Your task to perform on an android device: Look up the top rated headphones on Amazon. Image 0: 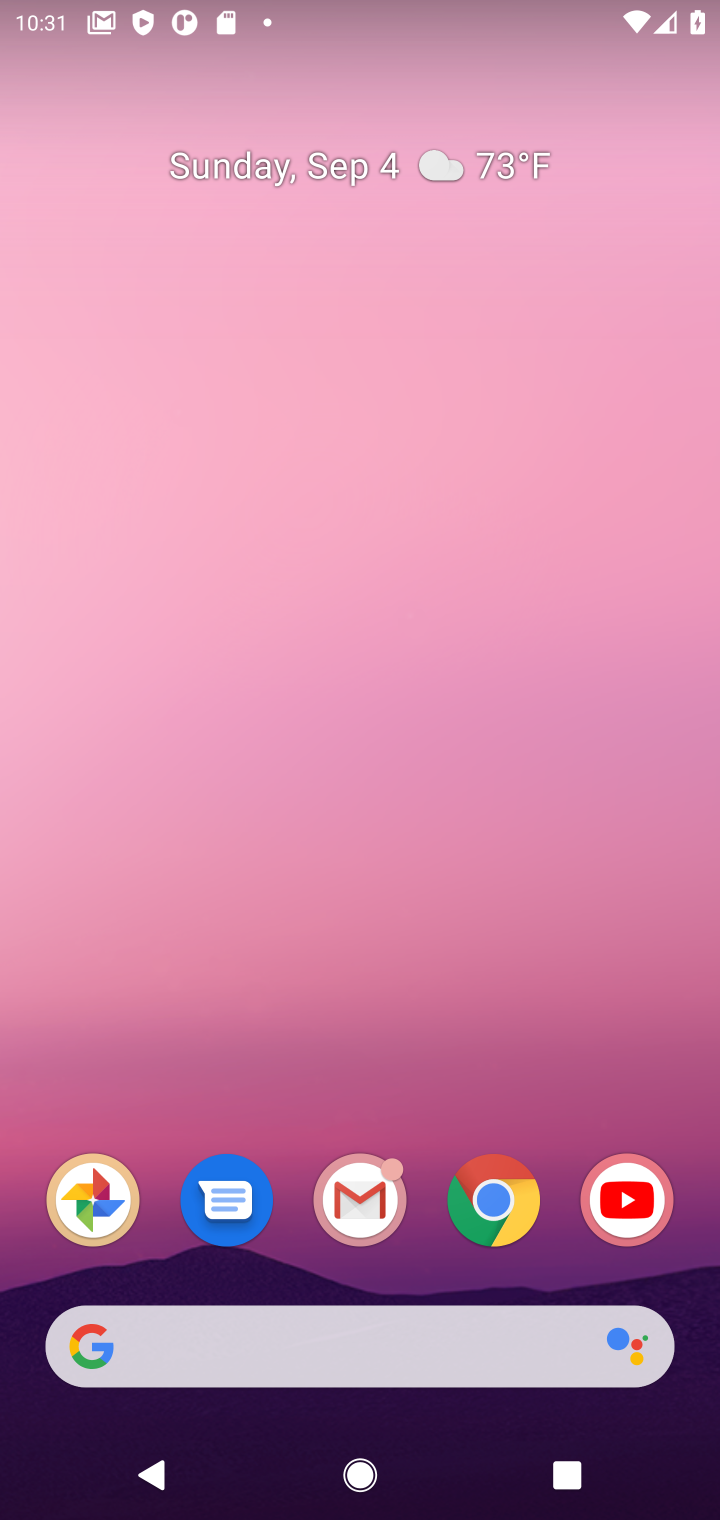
Step 0: click (623, 257)
Your task to perform on an android device: Look up the top rated headphones on Amazon. Image 1: 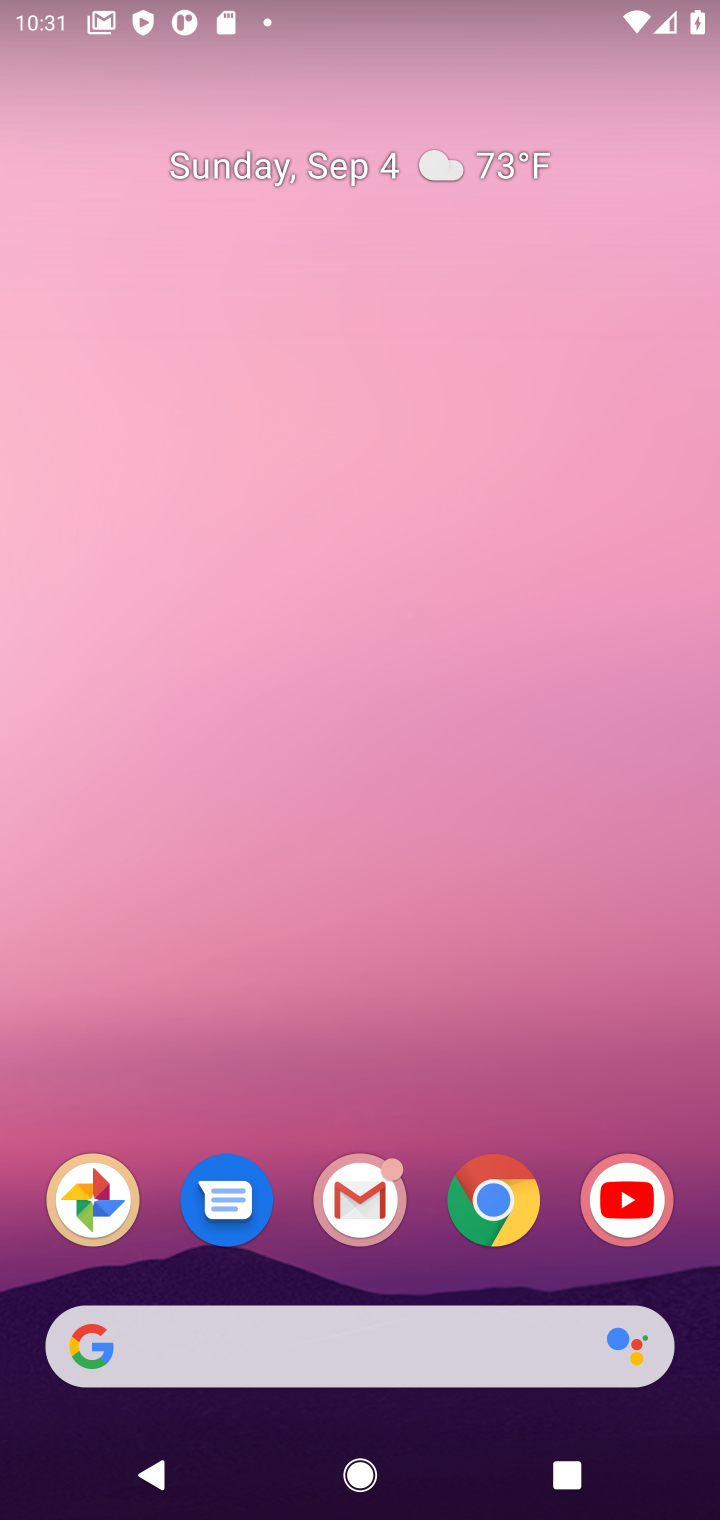
Step 1: click (471, 1213)
Your task to perform on an android device: Look up the top rated headphones on Amazon. Image 2: 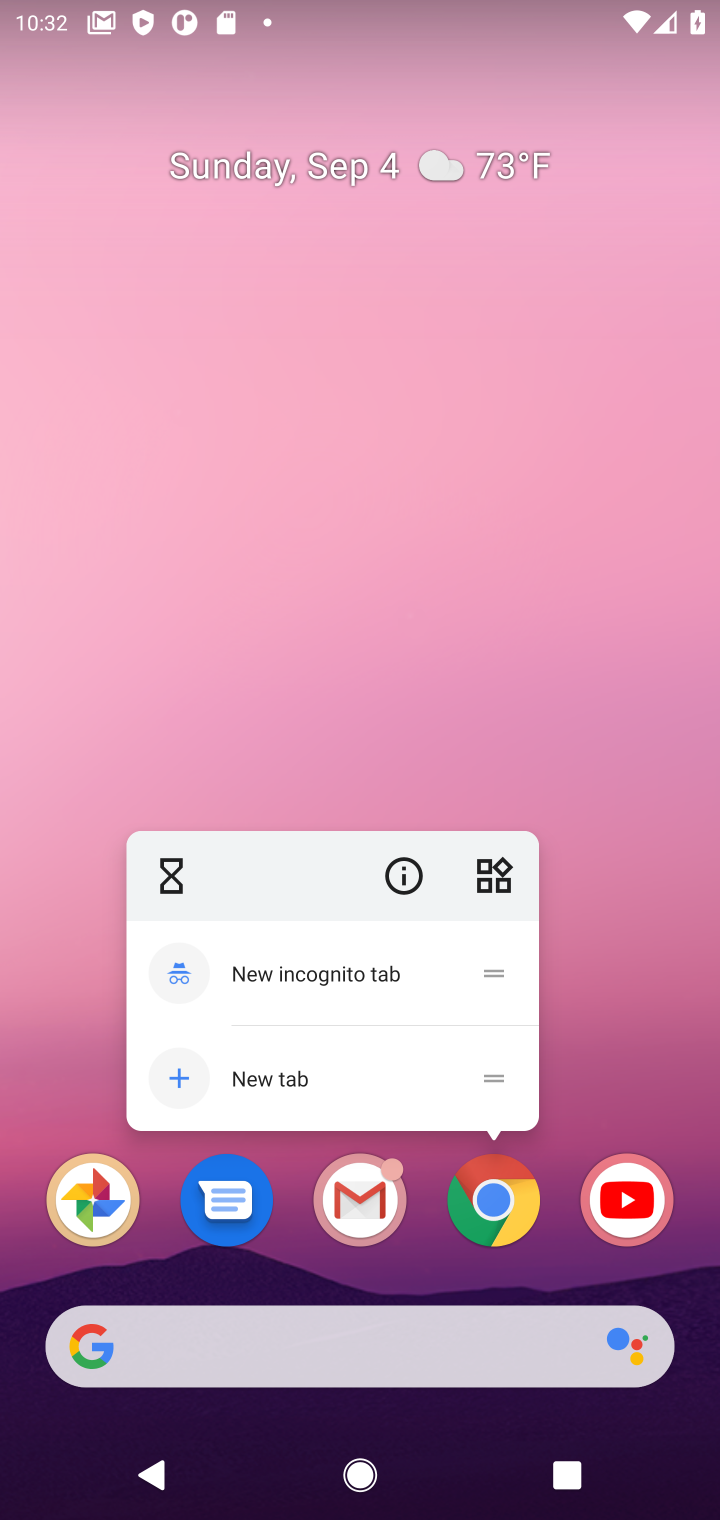
Step 2: click (509, 1218)
Your task to perform on an android device: Look up the top rated headphones on Amazon. Image 3: 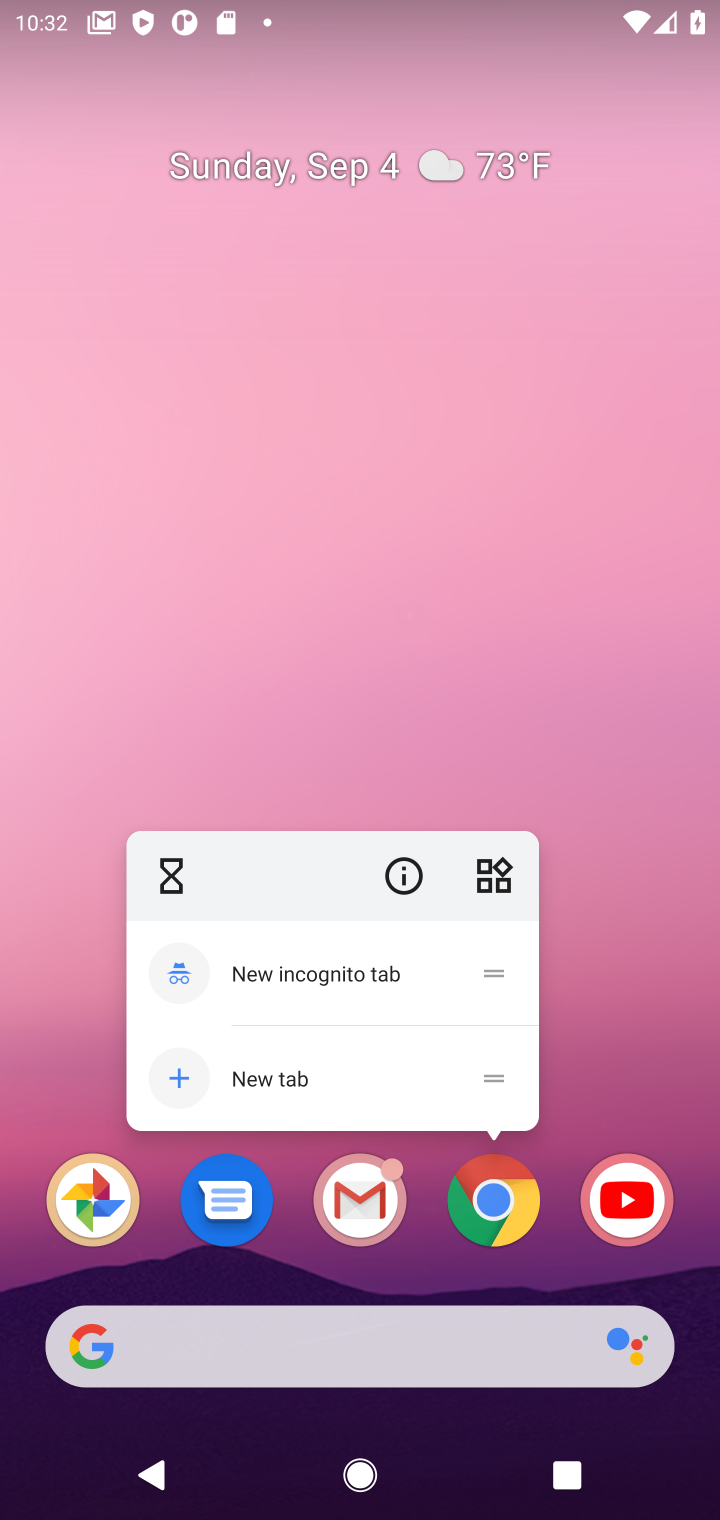
Step 3: click (509, 1218)
Your task to perform on an android device: Look up the top rated headphones on Amazon. Image 4: 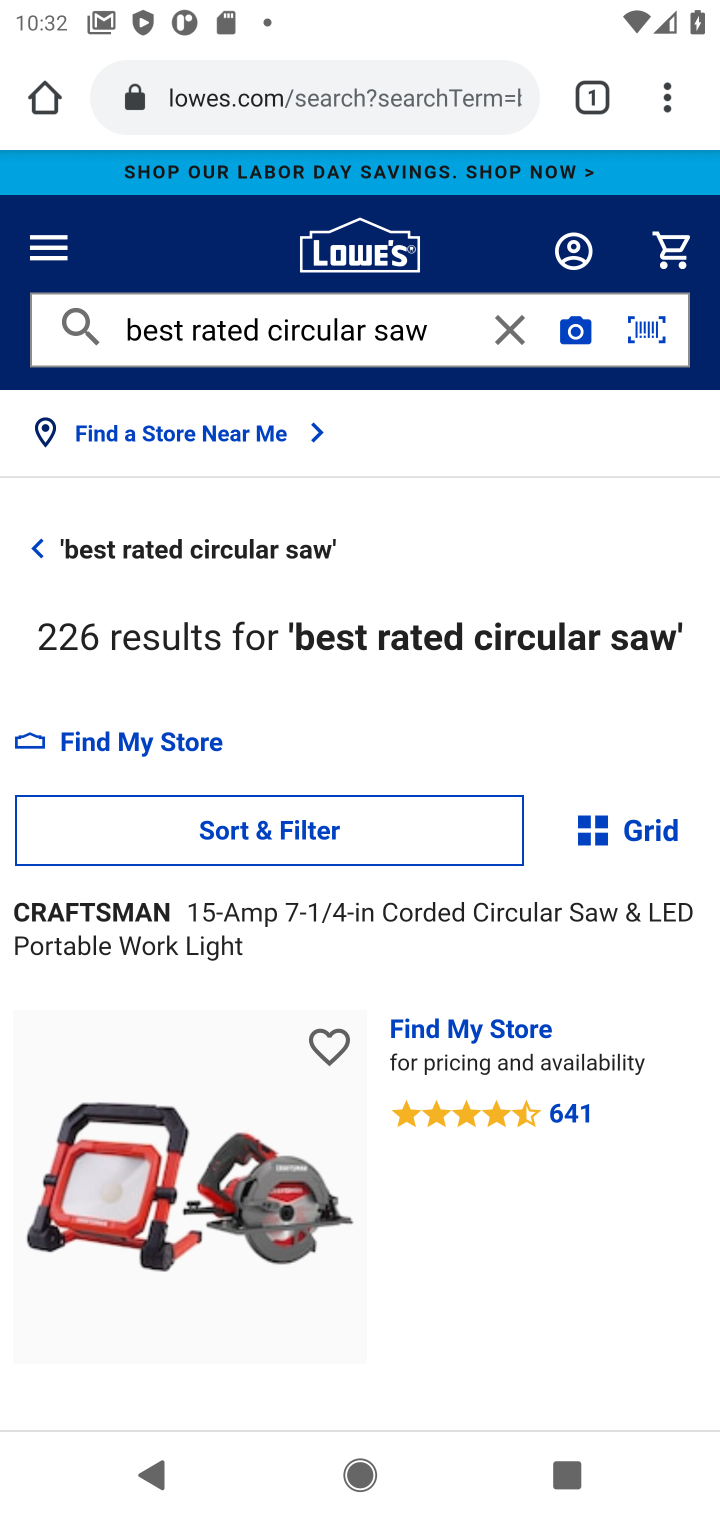
Step 4: click (511, 1208)
Your task to perform on an android device: Look up the top rated headphones on Amazon. Image 5: 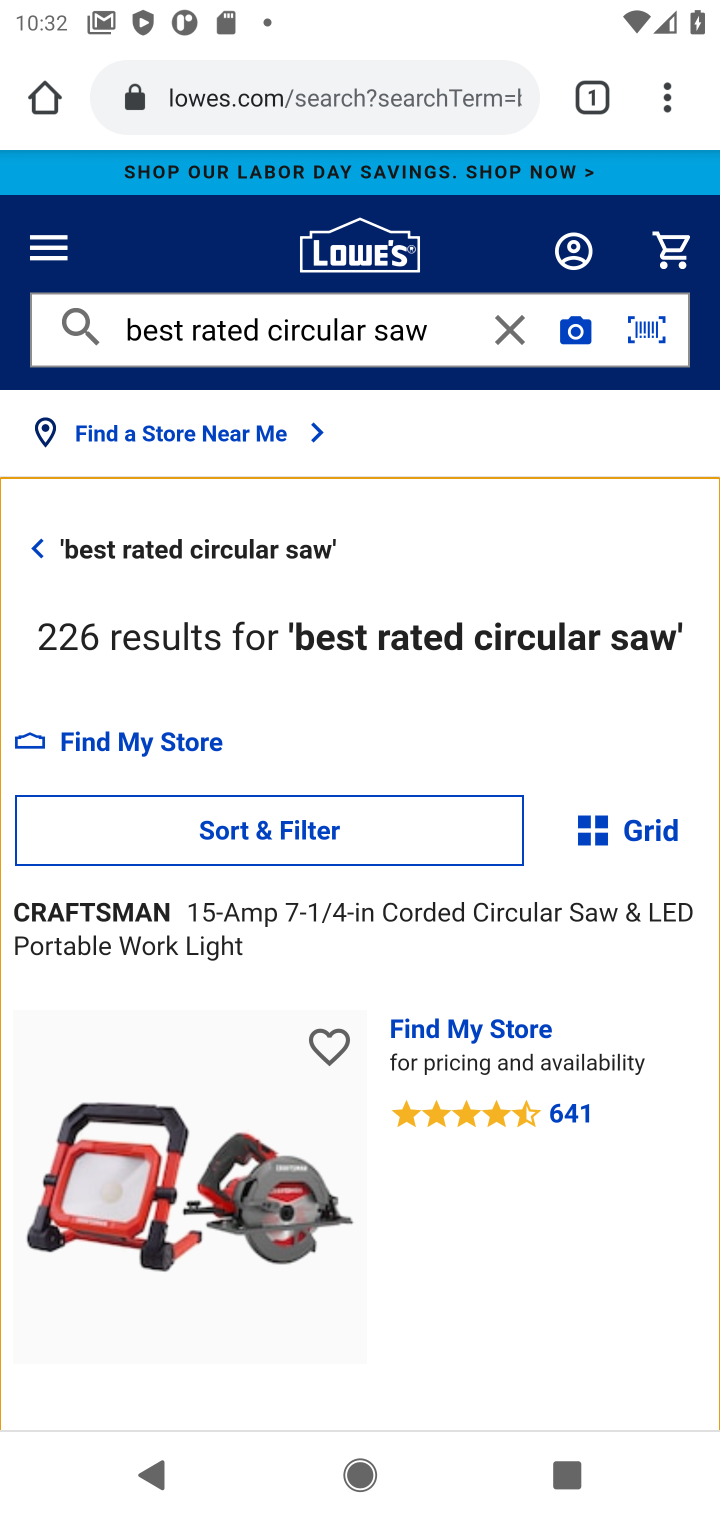
Step 5: click (373, 107)
Your task to perform on an android device: Look up the top rated headphones on Amazon. Image 6: 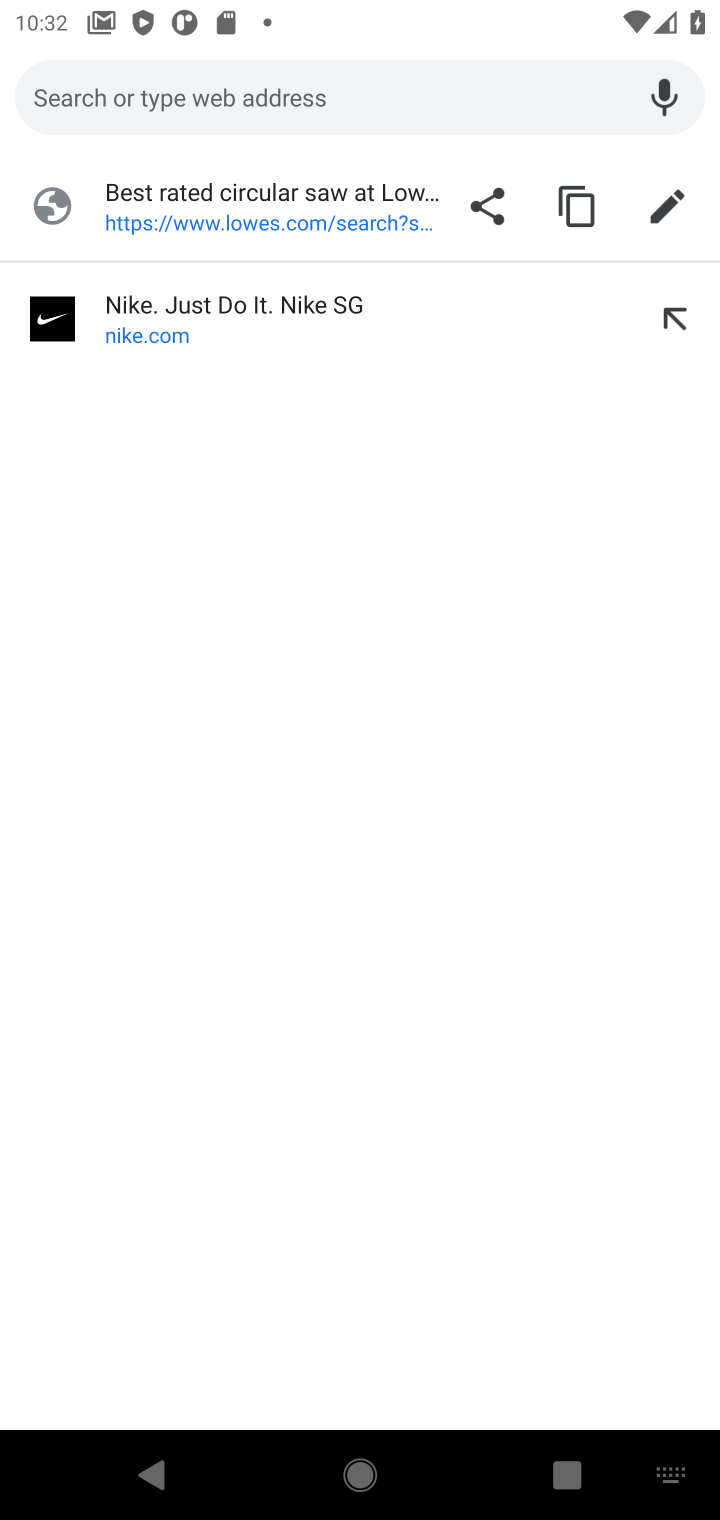
Step 6: type "amazon"
Your task to perform on an android device: Look up the top rated headphones on Amazon. Image 7: 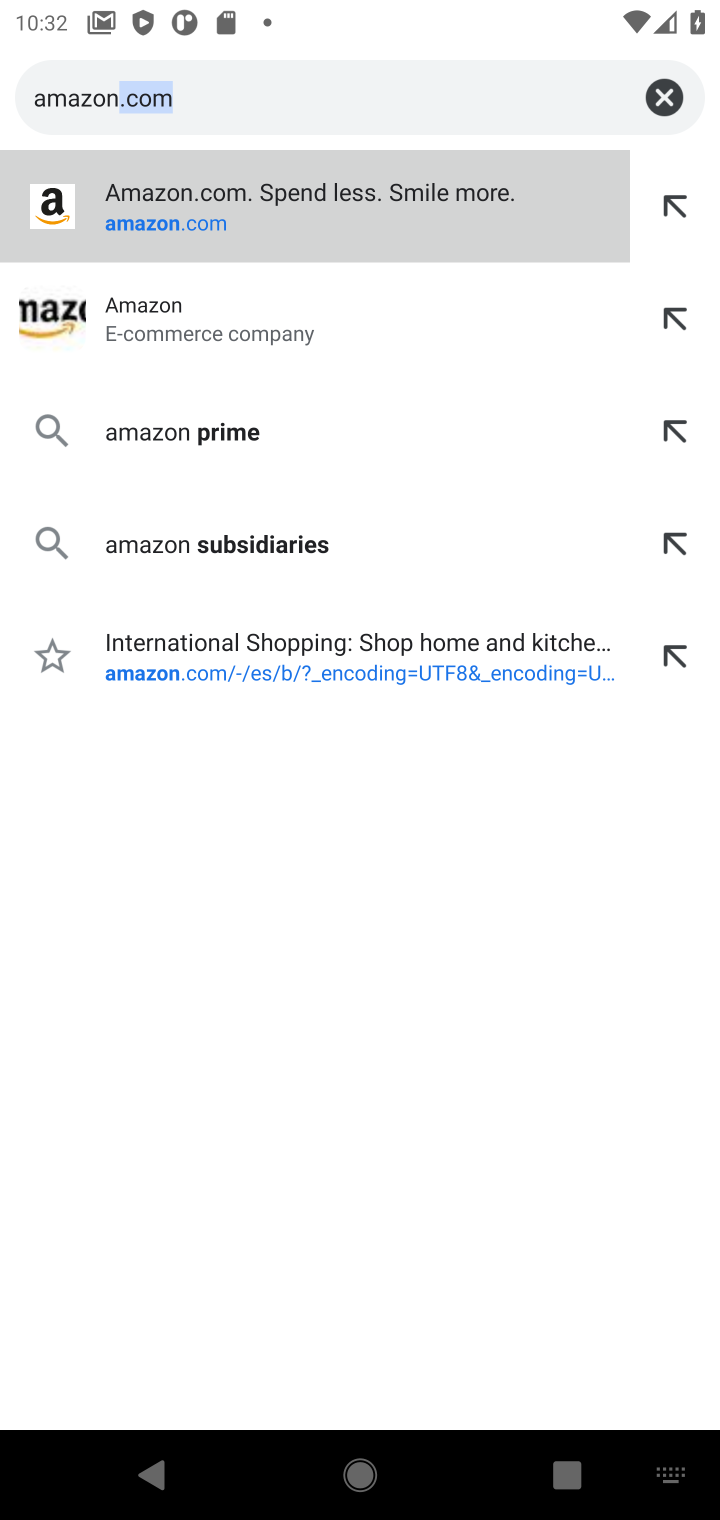
Step 7: click (430, 217)
Your task to perform on an android device: Look up the top rated headphones on Amazon. Image 8: 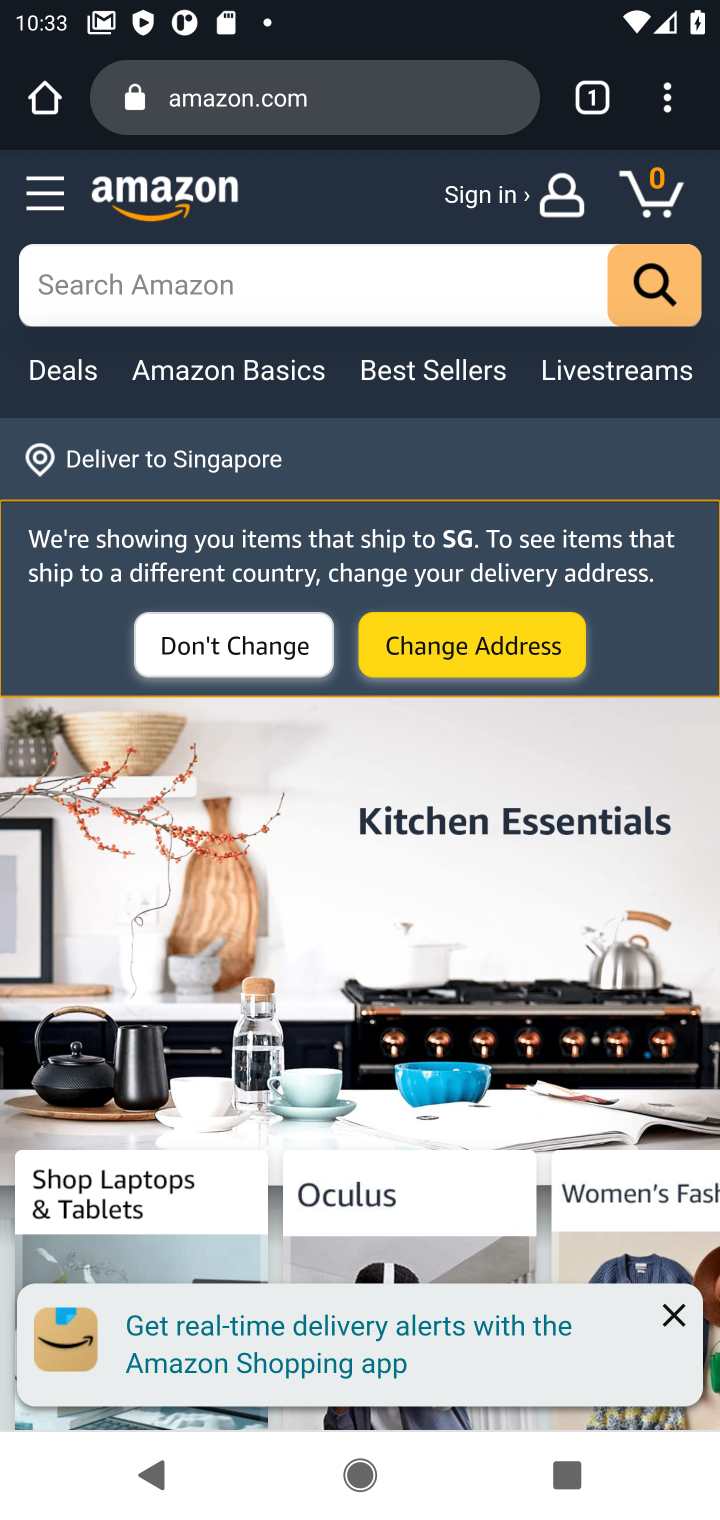
Step 8: task complete